Your task to perform on an android device: Search for Italian restaurants on Maps Image 0: 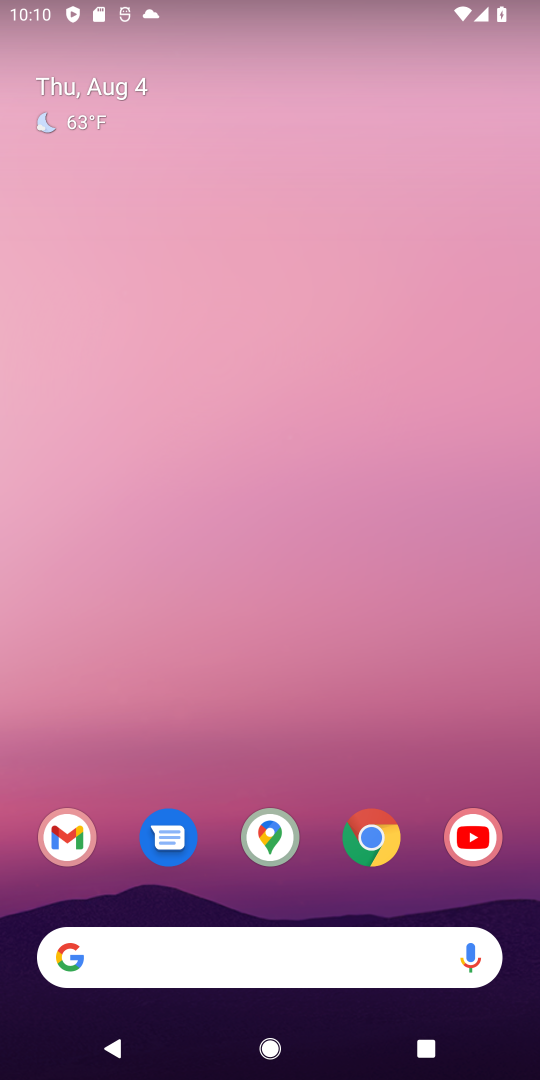
Step 0: drag from (207, 641) to (222, 297)
Your task to perform on an android device: Search for Italian restaurants on Maps Image 1: 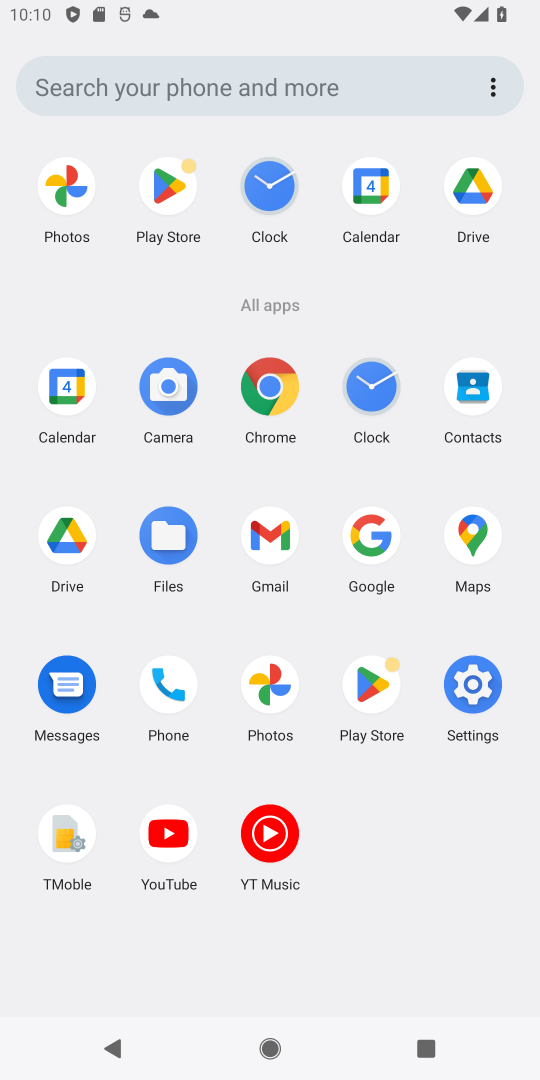
Step 1: click (436, 540)
Your task to perform on an android device: Search for Italian restaurants on Maps Image 2: 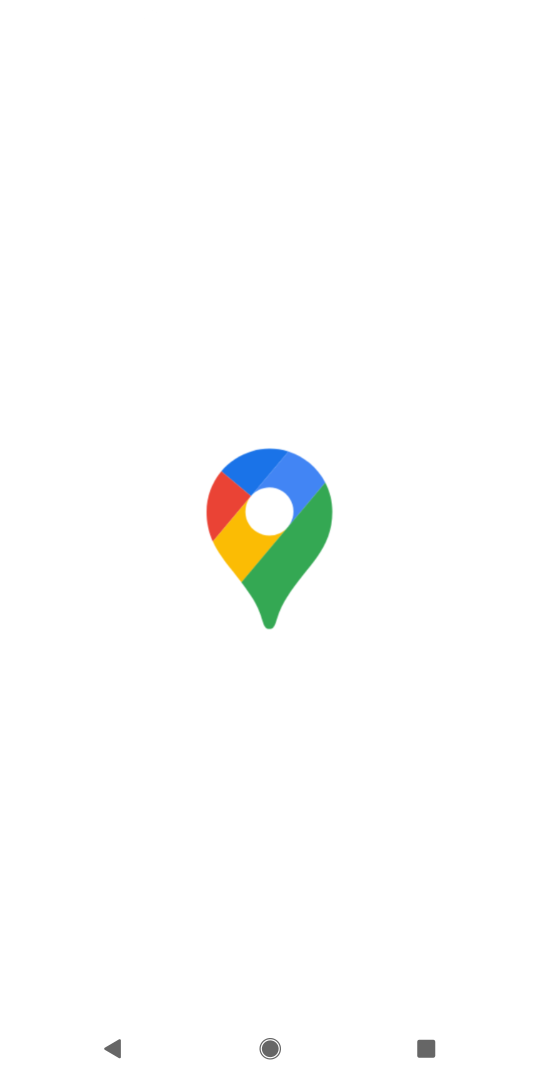
Step 2: click (471, 933)
Your task to perform on an android device: Search for Italian restaurants on Maps Image 3: 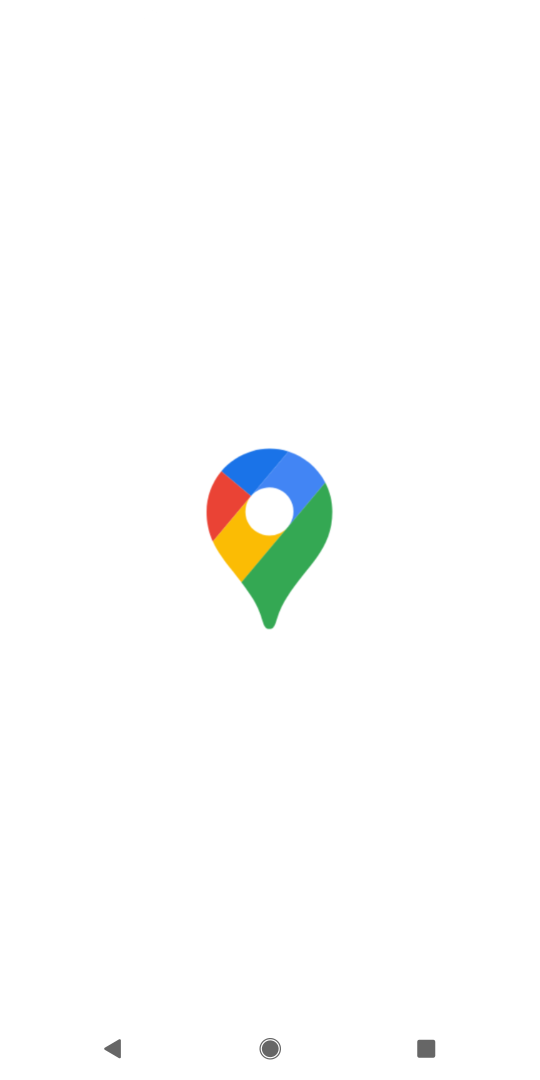
Step 3: click (471, 933)
Your task to perform on an android device: Search for Italian restaurants on Maps Image 4: 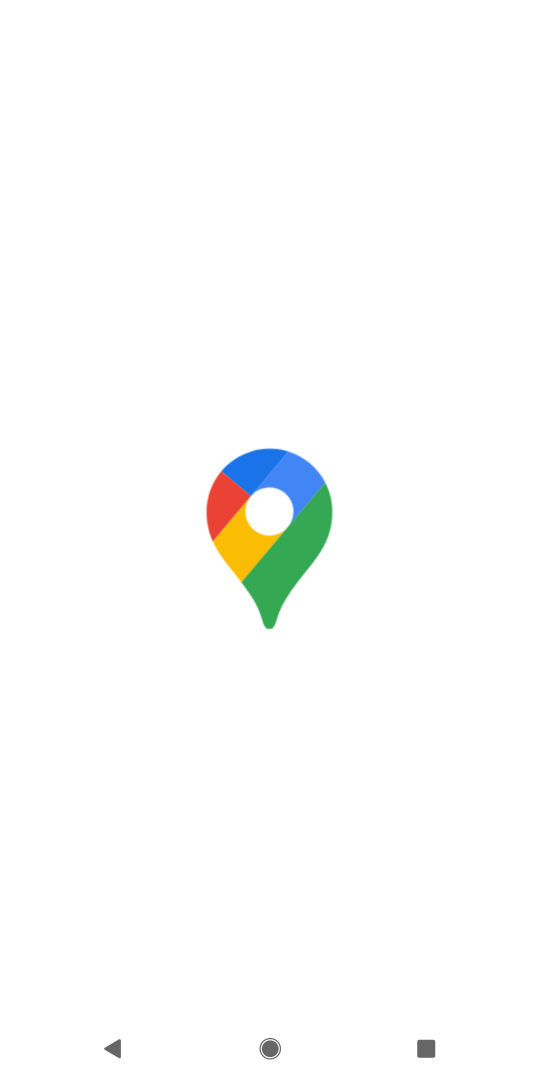
Step 4: task complete